Your task to perform on an android device: open app "Google Duo" Image 0: 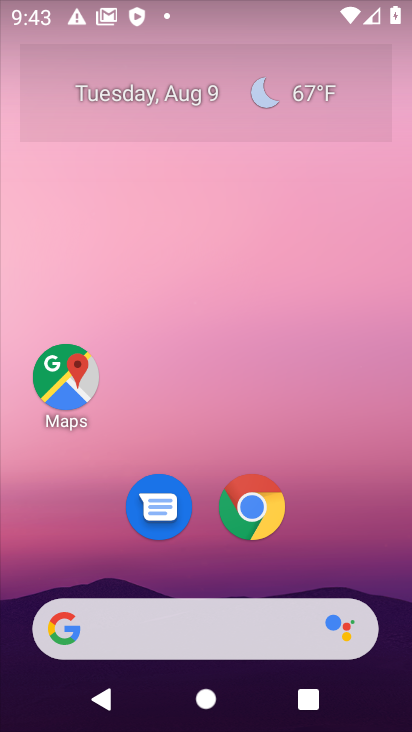
Step 0: drag from (197, 644) to (174, 174)
Your task to perform on an android device: open app "Google Duo" Image 1: 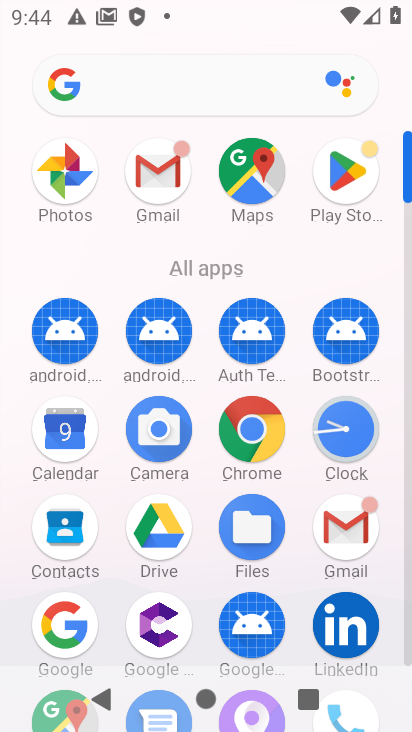
Step 1: click (344, 195)
Your task to perform on an android device: open app "Google Duo" Image 2: 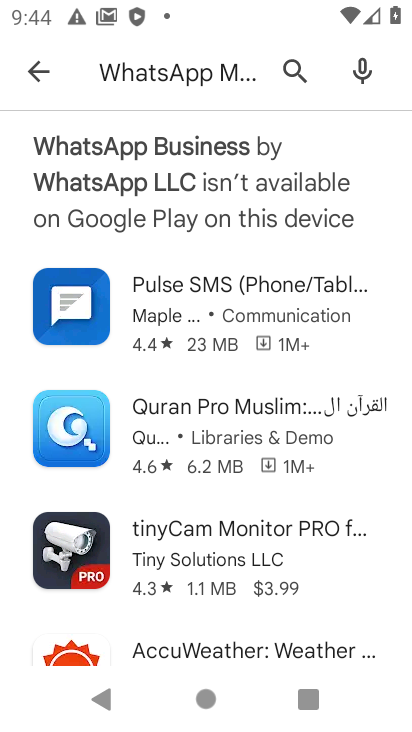
Step 2: click (37, 75)
Your task to perform on an android device: open app "Google Duo" Image 3: 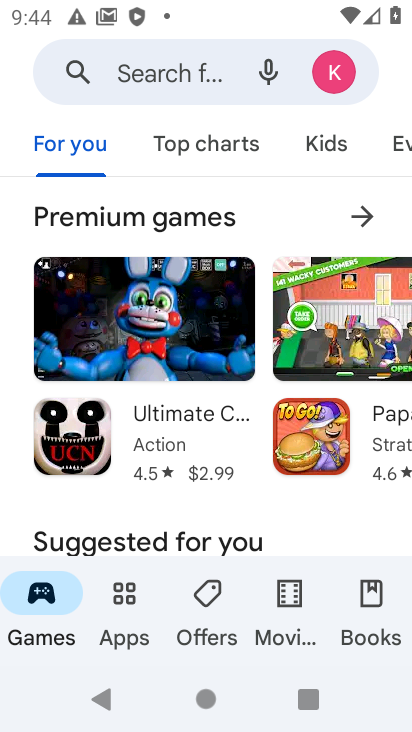
Step 3: click (176, 77)
Your task to perform on an android device: open app "Google Duo" Image 4: 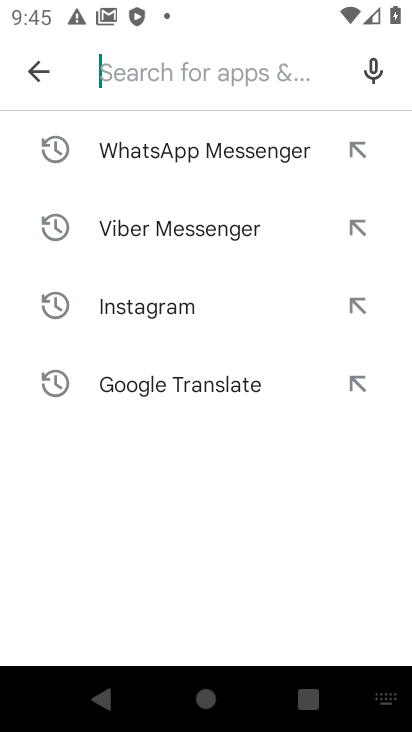
Step 4: type "Google Duo"
Your task to perform on an android device: open app "Google Duo" Image 5: 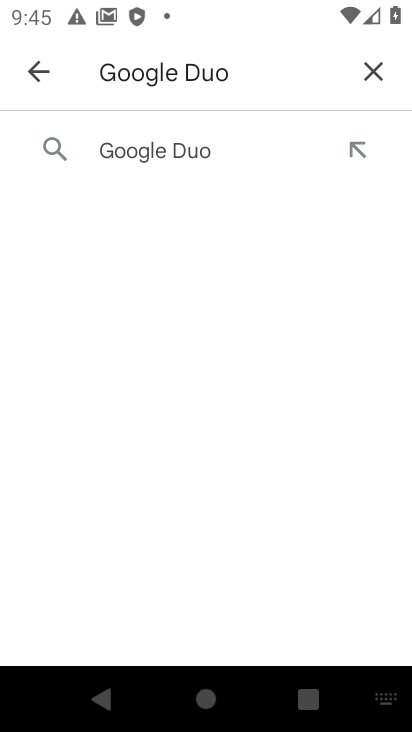
Step 5: click (149, 145)
Your task to perform on an android device: open app "Google Duo" Image 6: 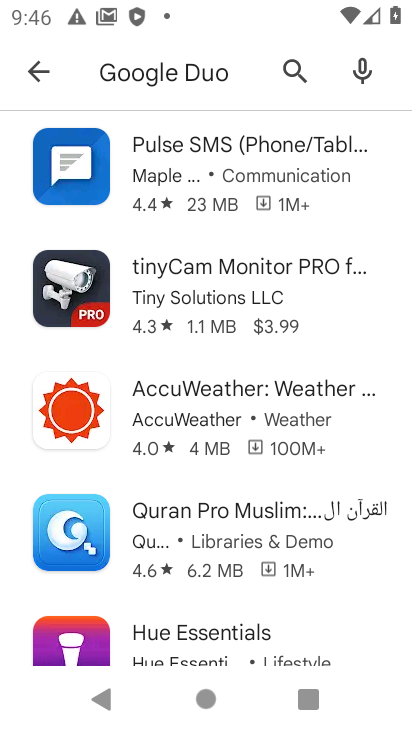
Step 6: task complete